Your task to perform on an android device: Search for Italian restaurants on Maps Image 0: 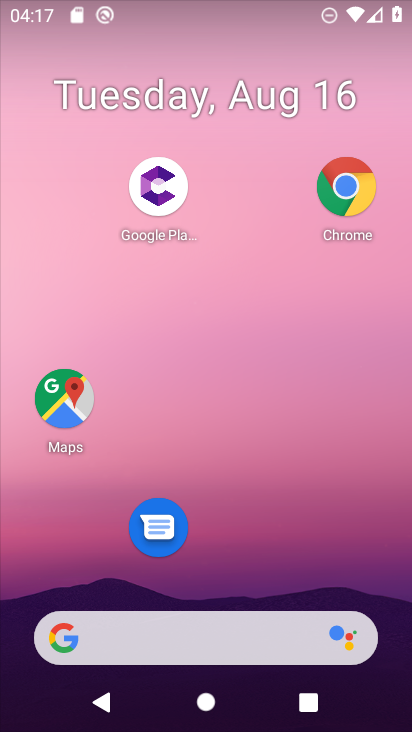
Step 0: press home button
Your task to perform on an android device: Search for Italian restaurants on Maps Image 1: 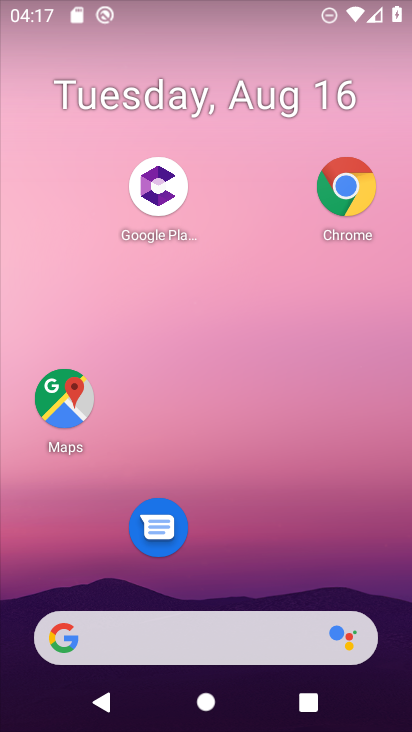
Step 1: click (62, 394)
Your task to perform on an android device: Search for Italian restaurants on Maps Image 2: 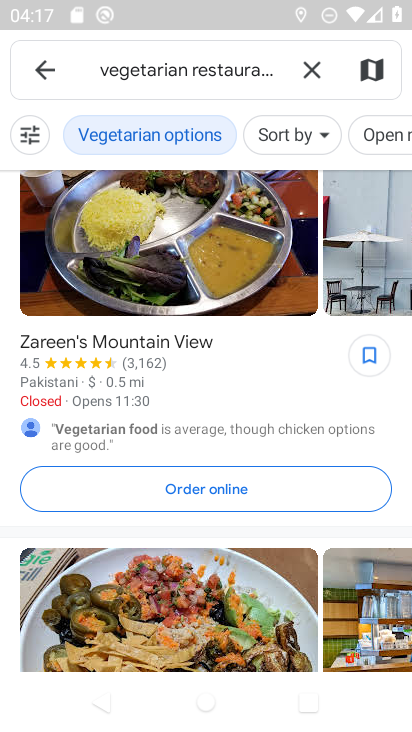
Step 2: click (314, 67)
Your task to perform on an android device: Search for Italian restaurants on Maps Image 3: 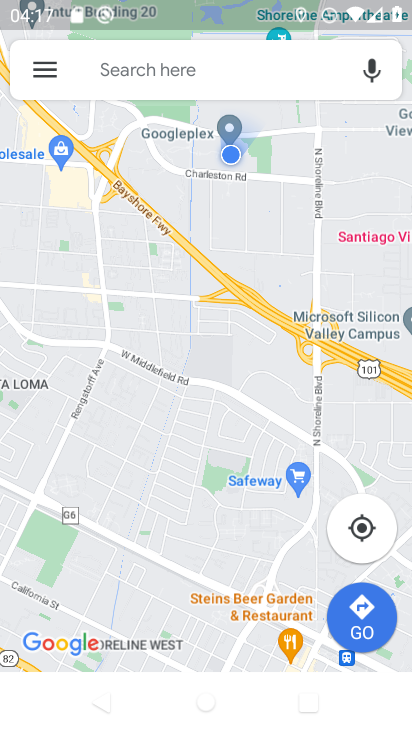
Step 3: click (139, 62)
Your task to perform on an android device: Search for Italian restaurants on Maps Image 4: 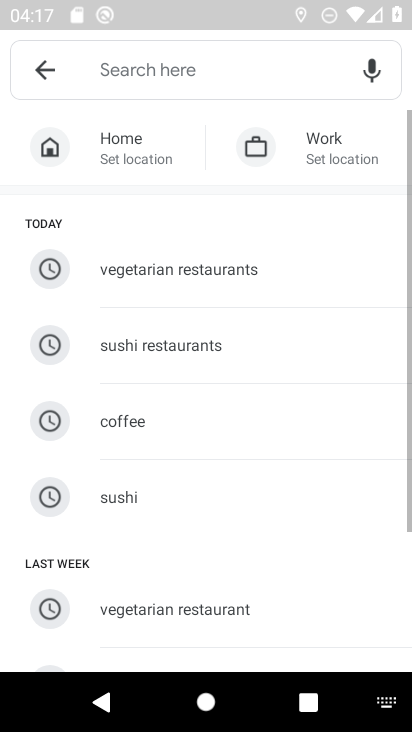
Step 4: click (134, 68)
Your task to perform on an android device: Search for Italian restaurants on Maps Image 5: 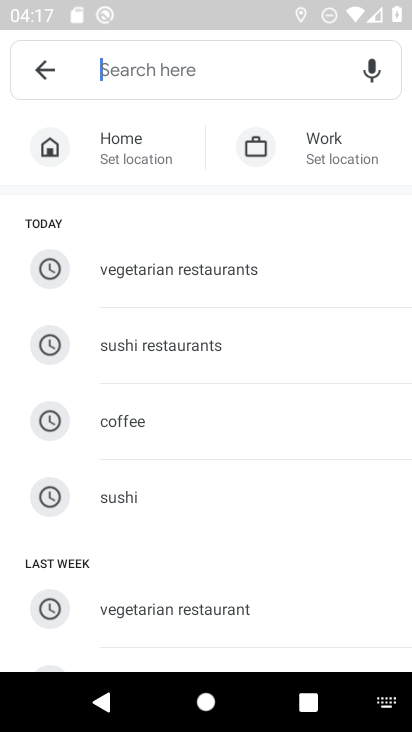
Step 5: type "Italian restaurants"
Your task to perform on an android device: Search for Italian restaurants on Maps Image 6: 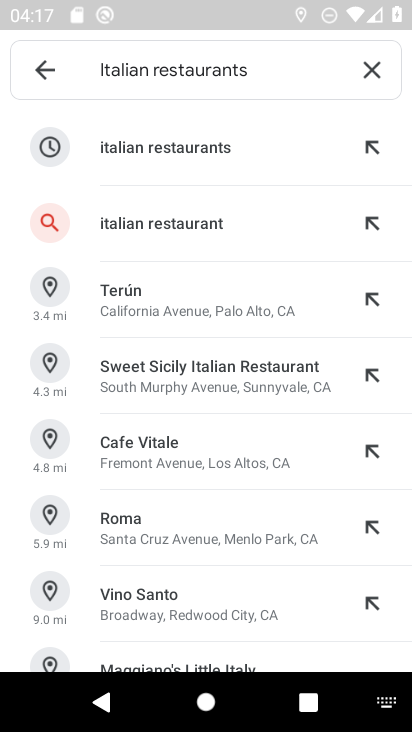
Step 6: click (194, 151)
Your task to perform on an android device: Search for Italian restaurants on Maps Image 7: 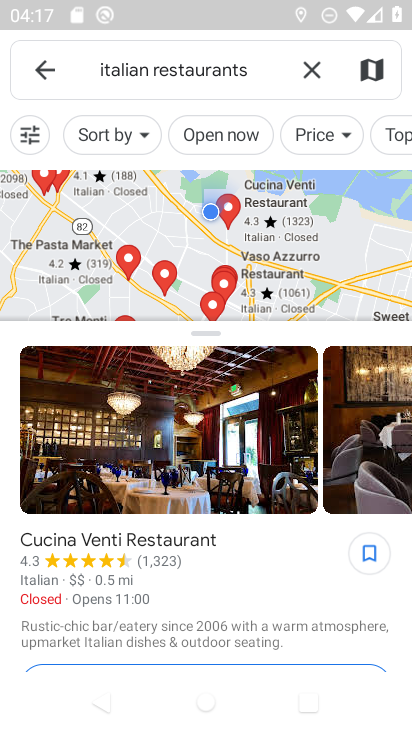
Step 7: task complete